Your task to perform on an android device: Go to location settings Image 0: 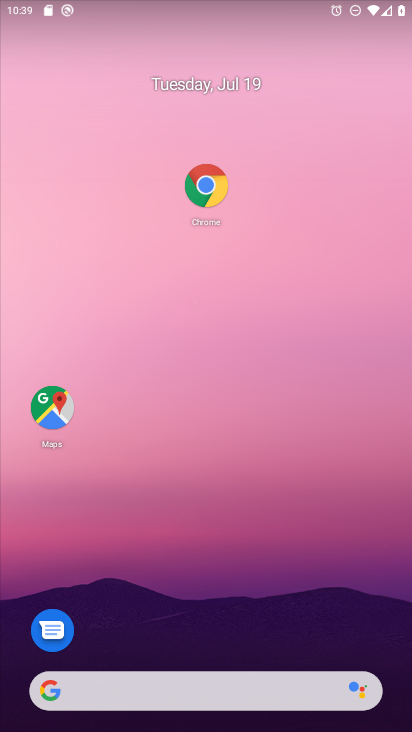
Step 0: drag from (177, 454) to (210, 182)
Your task to perform on an android device: Go to location settings Image 1: 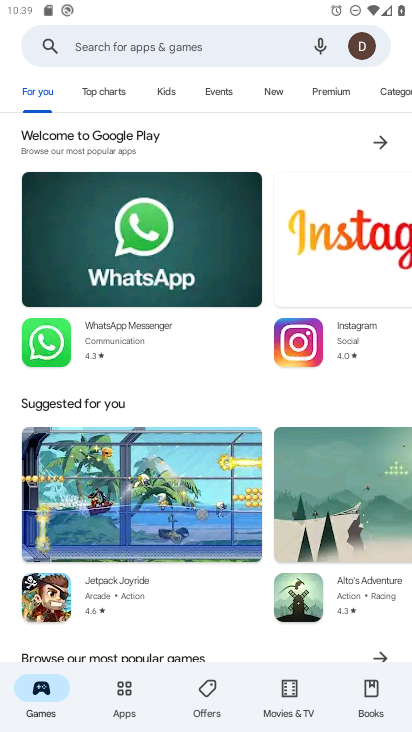
Step 1: press home button
Your task to perform on an android device: Go to location settings Image 2: 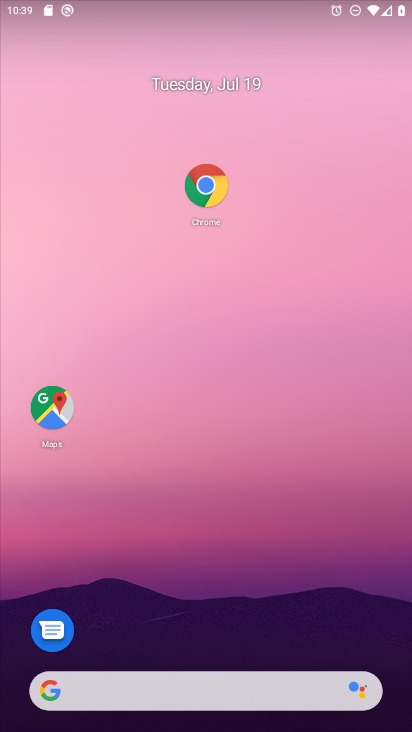
Step 2: drag from (176, 587) to (217, 104)
Your task to perform on an android device: Go to location settings Image 3: 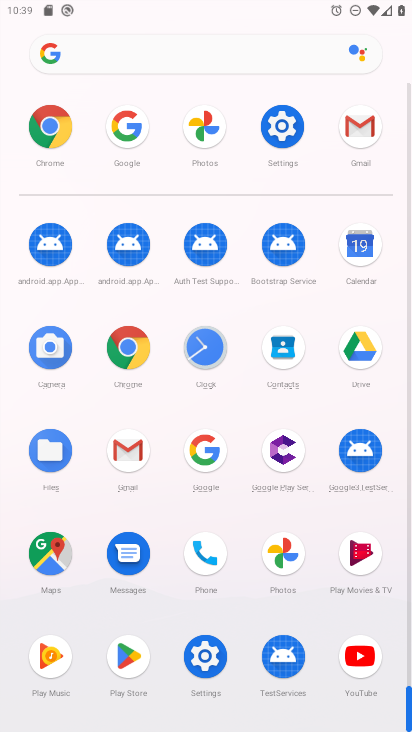
Step 3: click (272, 141)
Your task to perform on an android device: Go to location settings Image 4: 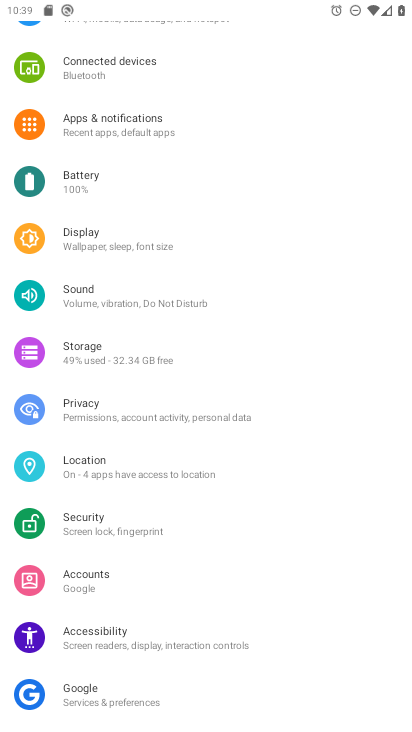
Step 4: click (125, 467)
Your task to perform on an android device: Go to location settings Image 5: 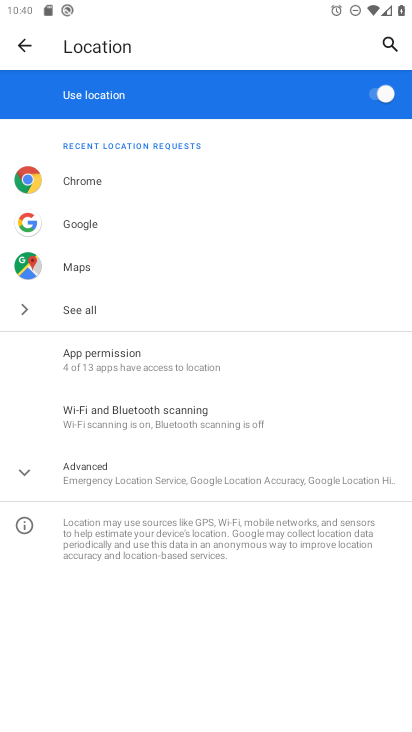
Step 5: task complete